Your task to perform on an android device: Find coffee shops on Maps Image 0: 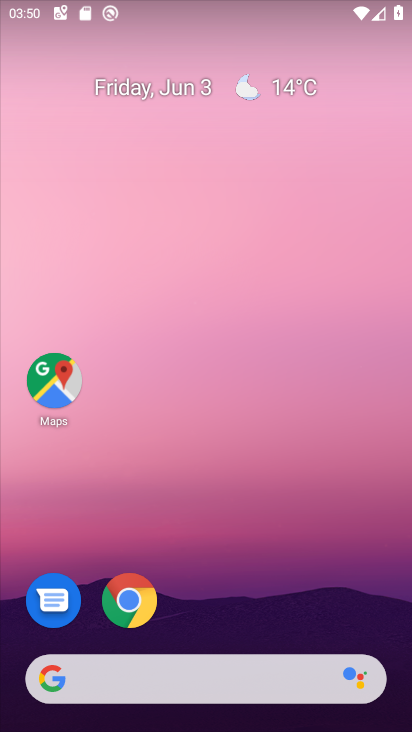
Step 0: click (302, 130)
Your task to perform on an android device: Find coffee shops on Maps Image 1: 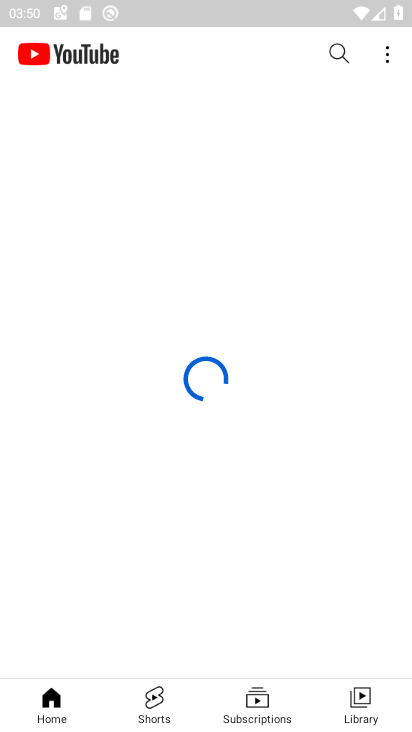
Step 1: press home button
Your task to perform on an android device: Find coffee shops on Maps Image 2: 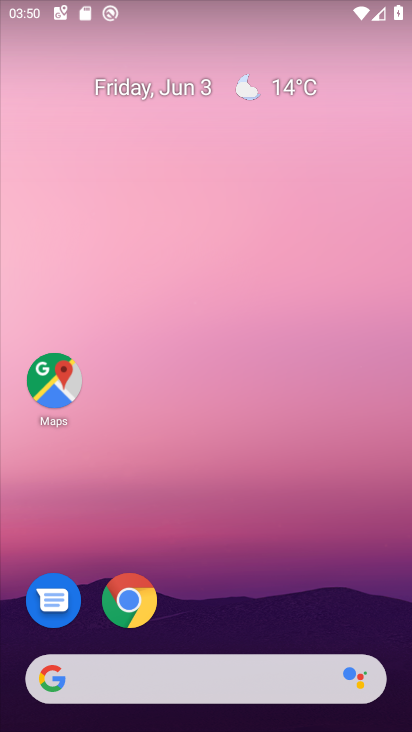
Step 2: click (61, 389)
Your task to perform on an android device: Find coffee shops on Maps Image 3: 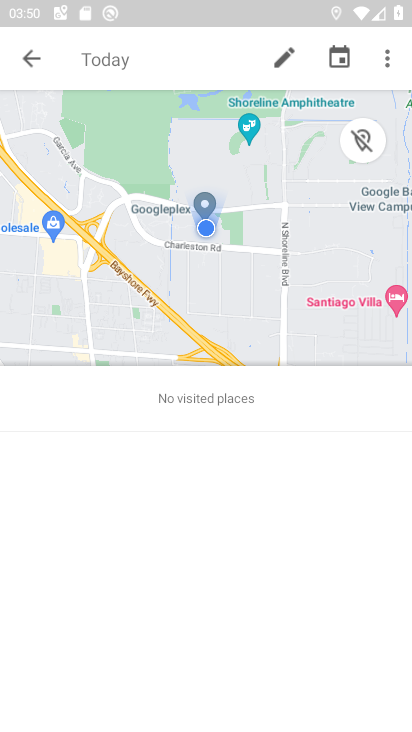
Step 3: click (30, 57)
Your task to perform on an android device: Find coffee shops on Maps Image 4: 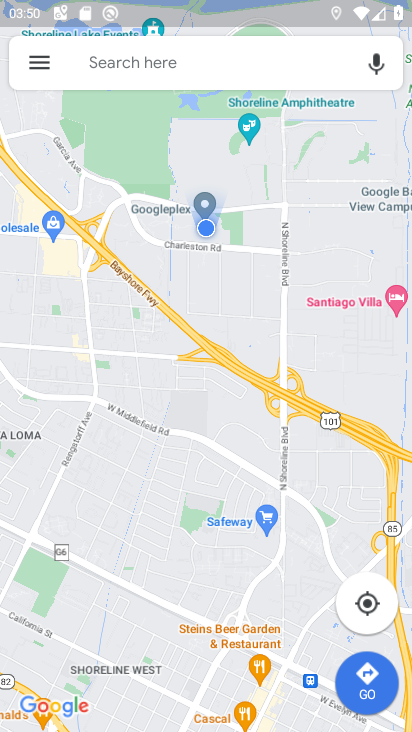
Step 4: click (225, 53)
Your task to perform on an android device: Find coffee shops on Maps Image 5: 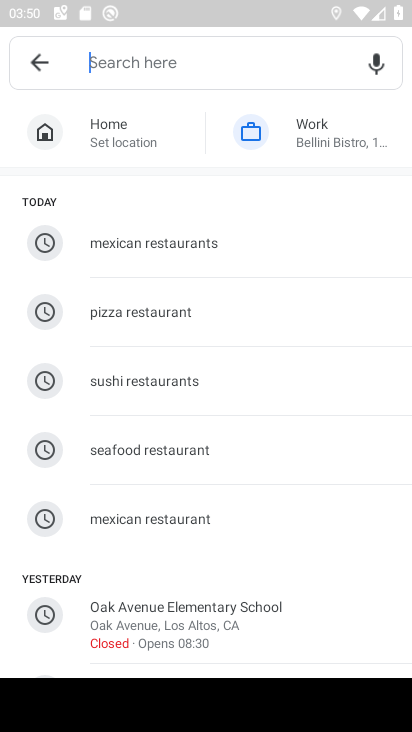
Step 5: type "coffee shops"
Your task to perform on an android device: Find coffee shops on Maps Image 6: 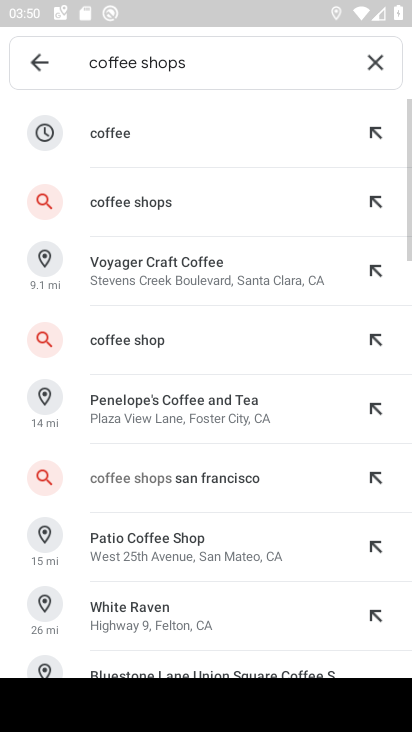
Step 6: click (137, 200)
Your task to perform on an android device: Find coffee shops on Maps Image 7: 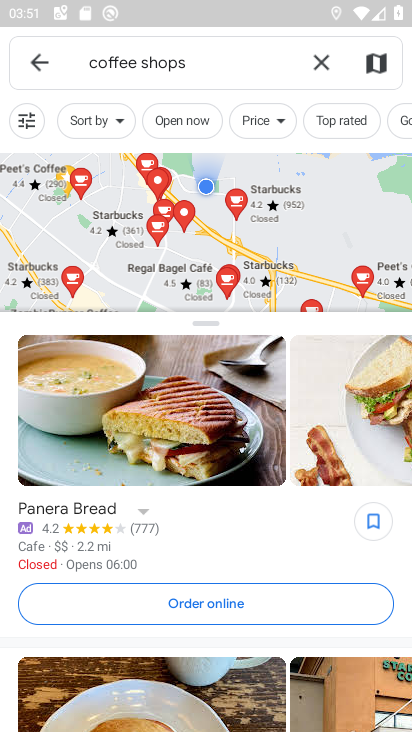
Step 7: task complete